Your task to perform on an android device: Is it going to rain today? Image 0: 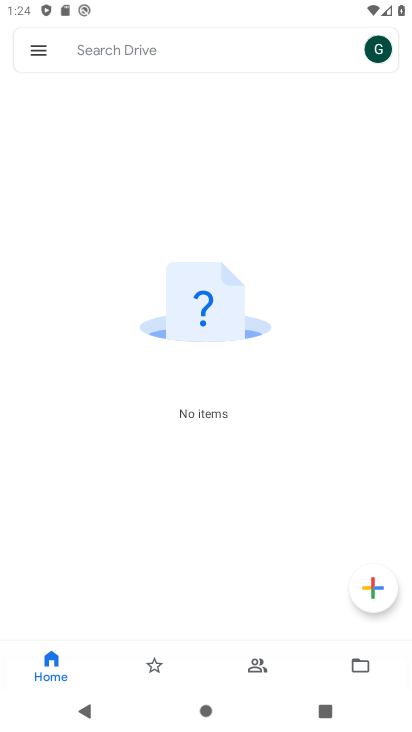
Step 0: press home button
Your task to perform on an android device: Is it going to rain today? Image 1: 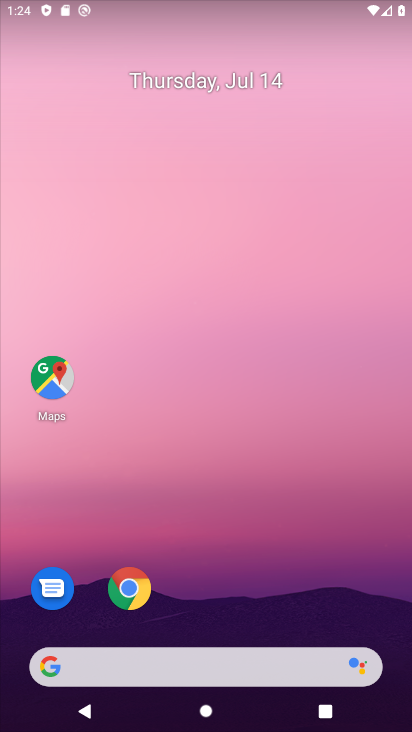
Step 1: click (221, 660)
Your task to perform on an android device: Is it going to rain today? Image 2: 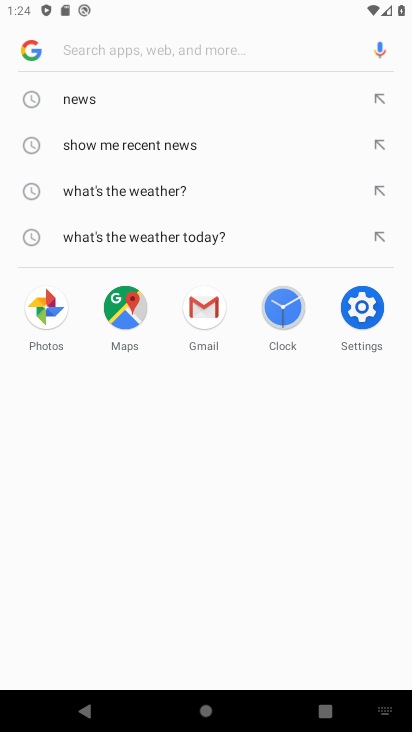
Step 2: type "is it going to rain today"
Your task to perform on an android device: Is it going to rain today? Image 3: 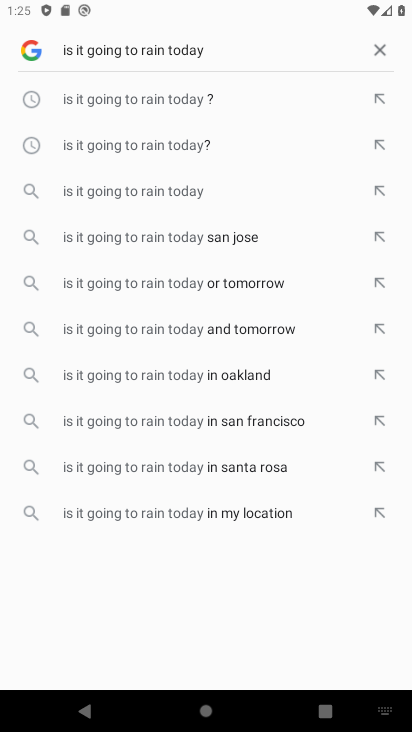
Step 3: click (143, 143)
Your task to perform on an android device: Is it going to rain today? Image 4: 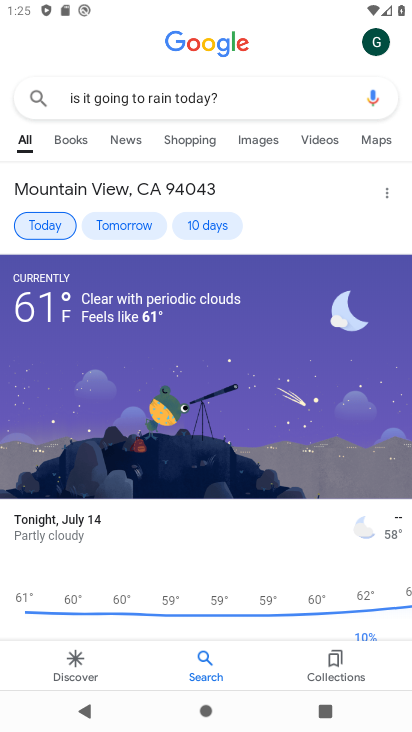
Step 4: task complete